Your task to perform on an android device: check storage Image 0: 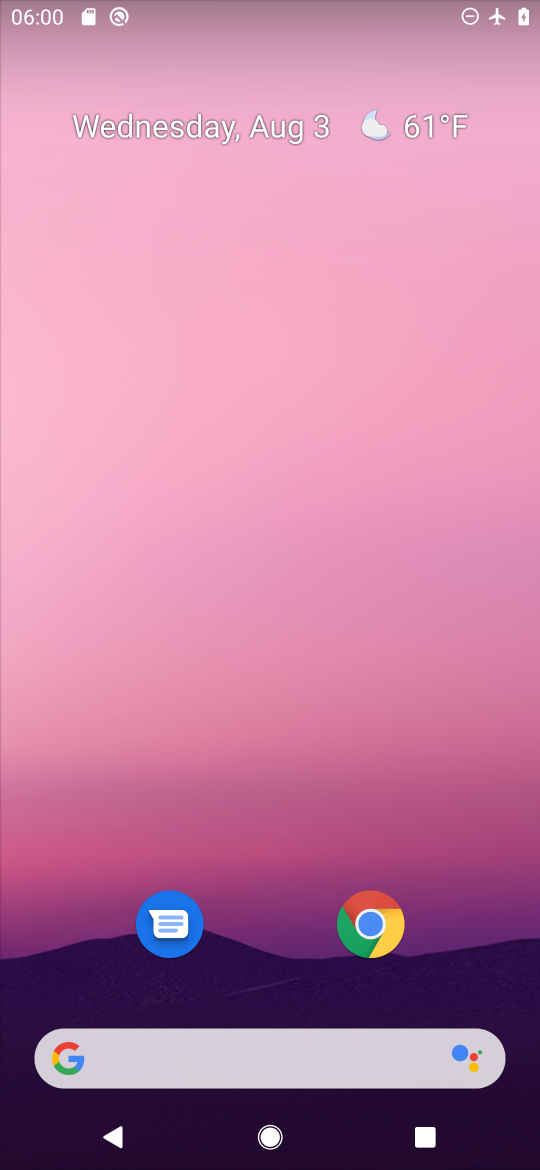
Step 0: drag from (248, 953) to (252, 356)
Your task to perform on an android device: check storage Image 1: 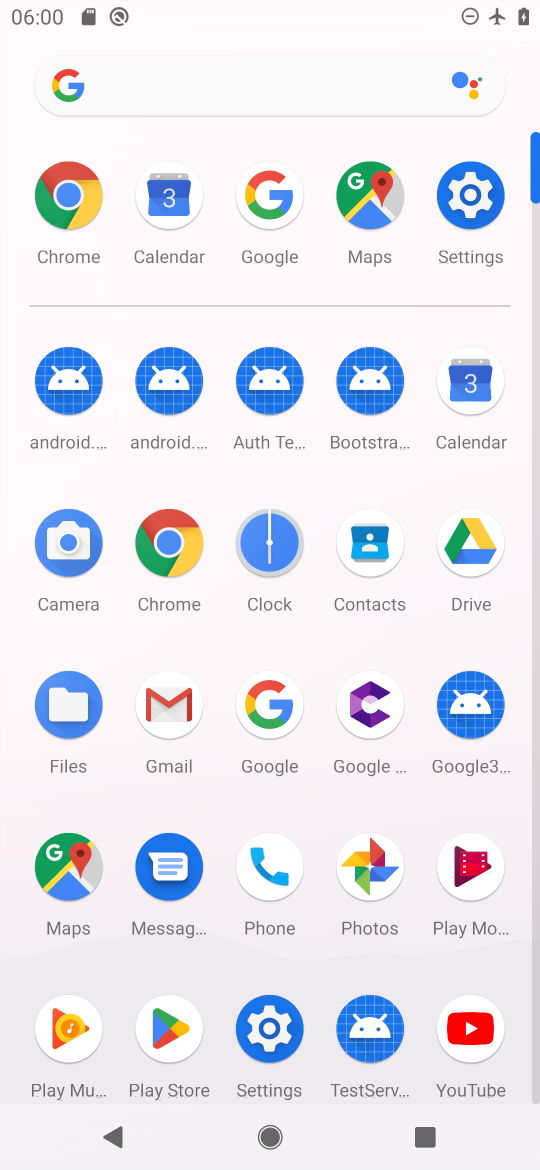
Step 1: click (499, 195)
Your task to perform on an android device: check storage Image 2: 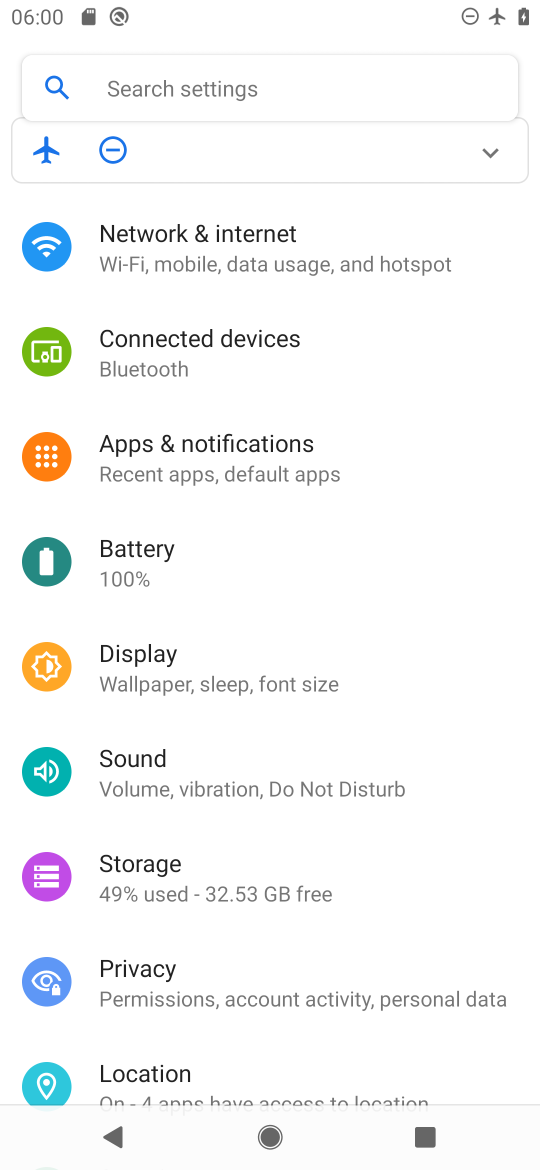
Step 2: click (219, 893)
Your task to perform on an android device: check storage Image 3: 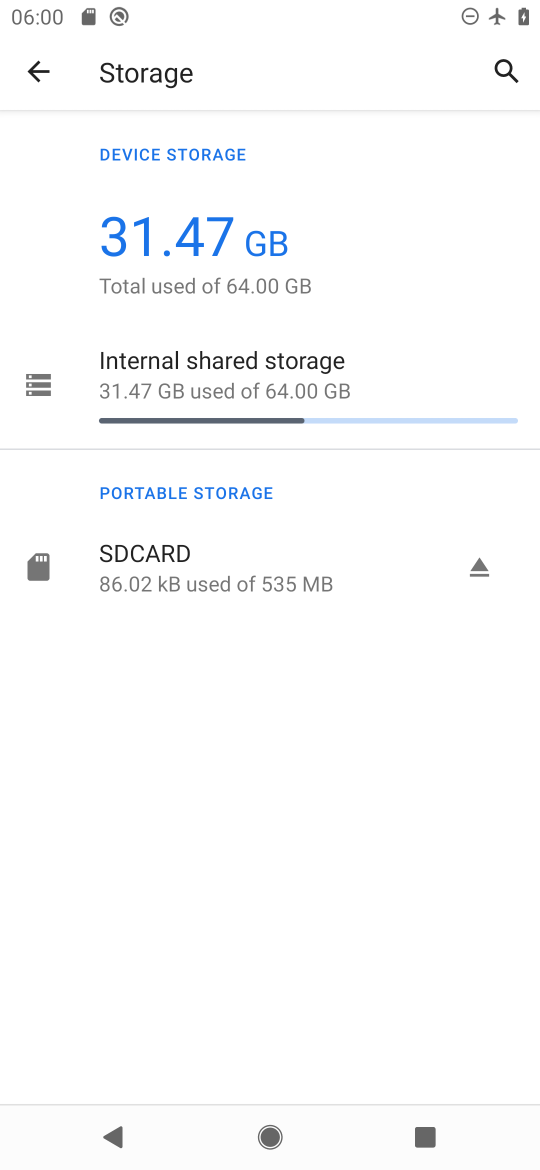
Step 3: click (331, 407)
Your task to perform on an android device: check storage Image 4: 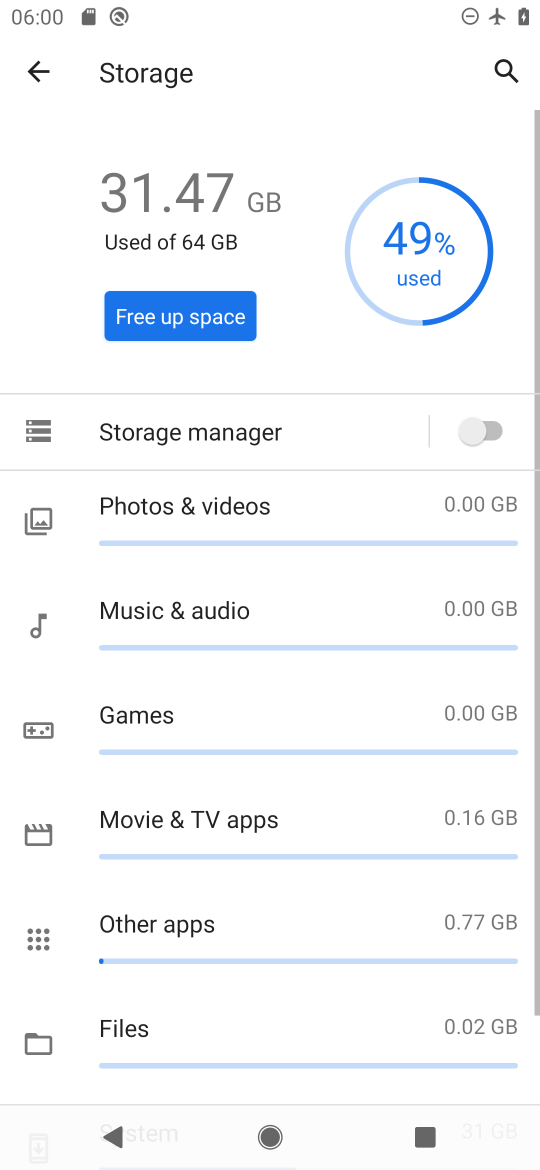
Step 4: task complete